Your task to perform on an android device: Show me some nice wallpapers for my phone Image 0: 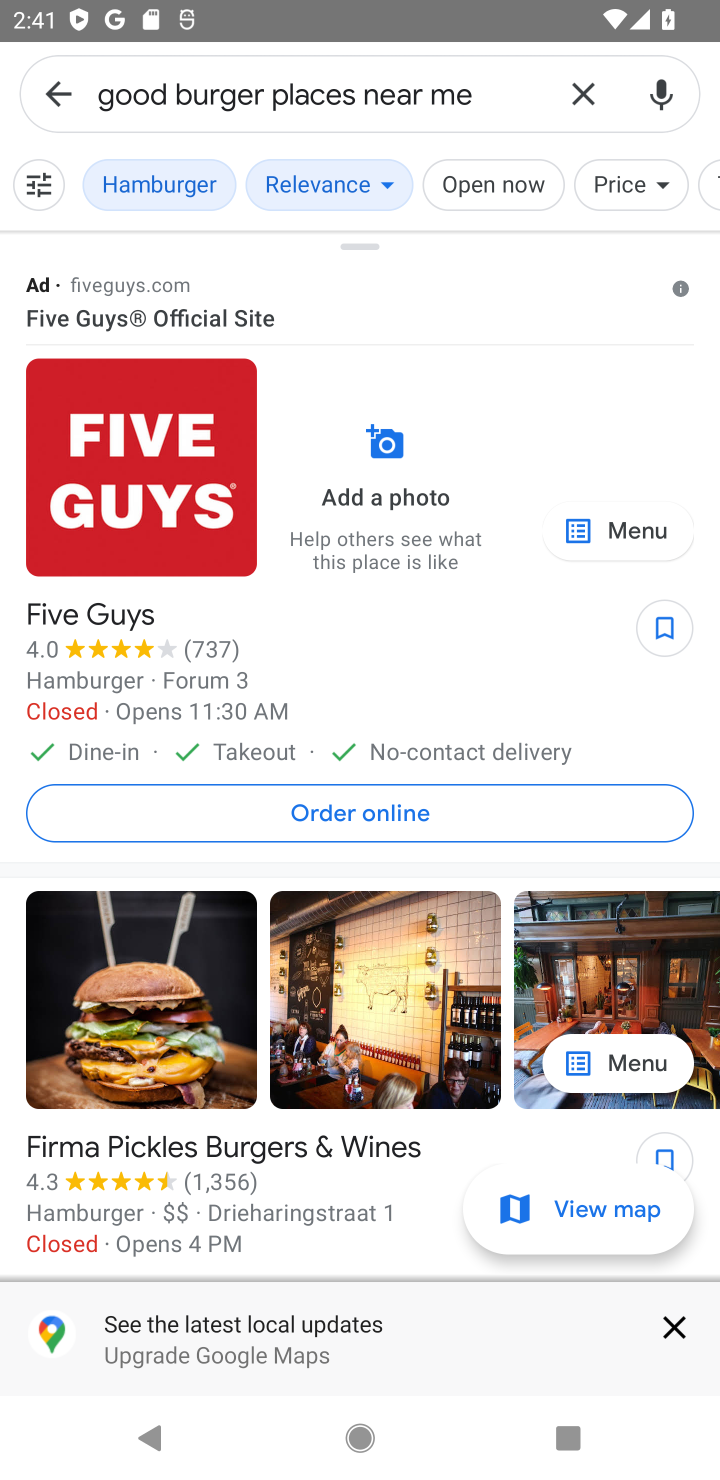
Step 0: press home button
Your task to perform on an android device: Show me some nice wallpapers for my phone Image 1: 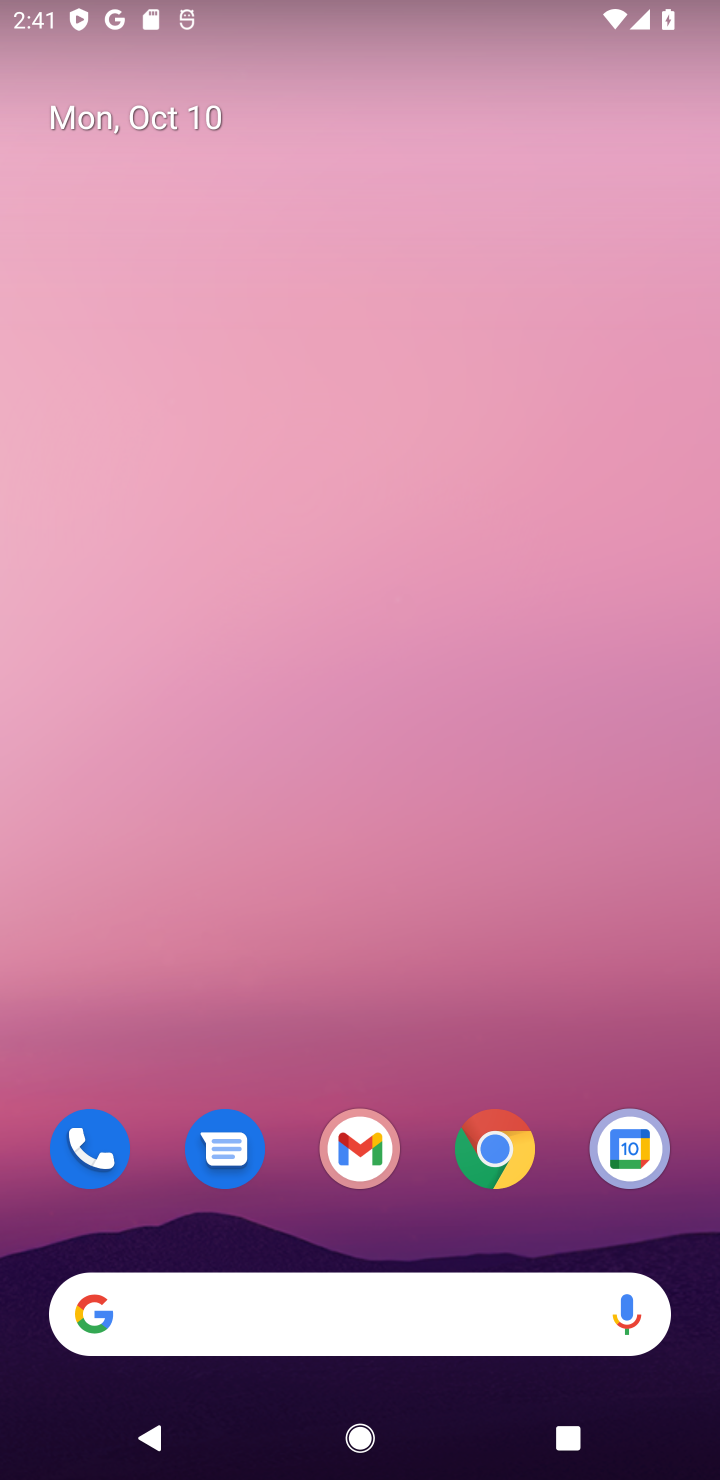
Step 1: click (366, 1338)
Your task to perform on an android device: Show me some nice wallpapers for my phone Image 2: 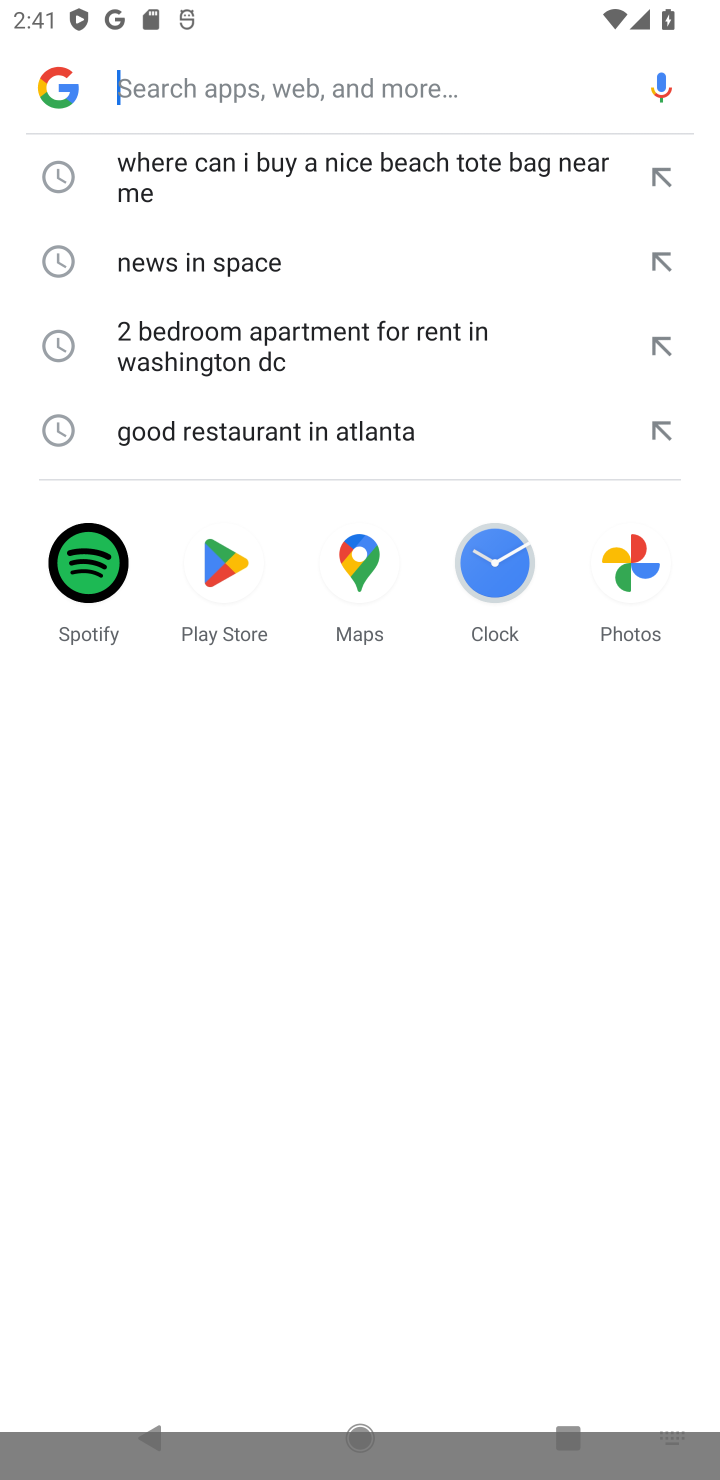
Step 2: type "Show me some nice wallpapers for my phone"
Your task to perform on an android device: Show me some nice wallpapers for my phone Image 3: 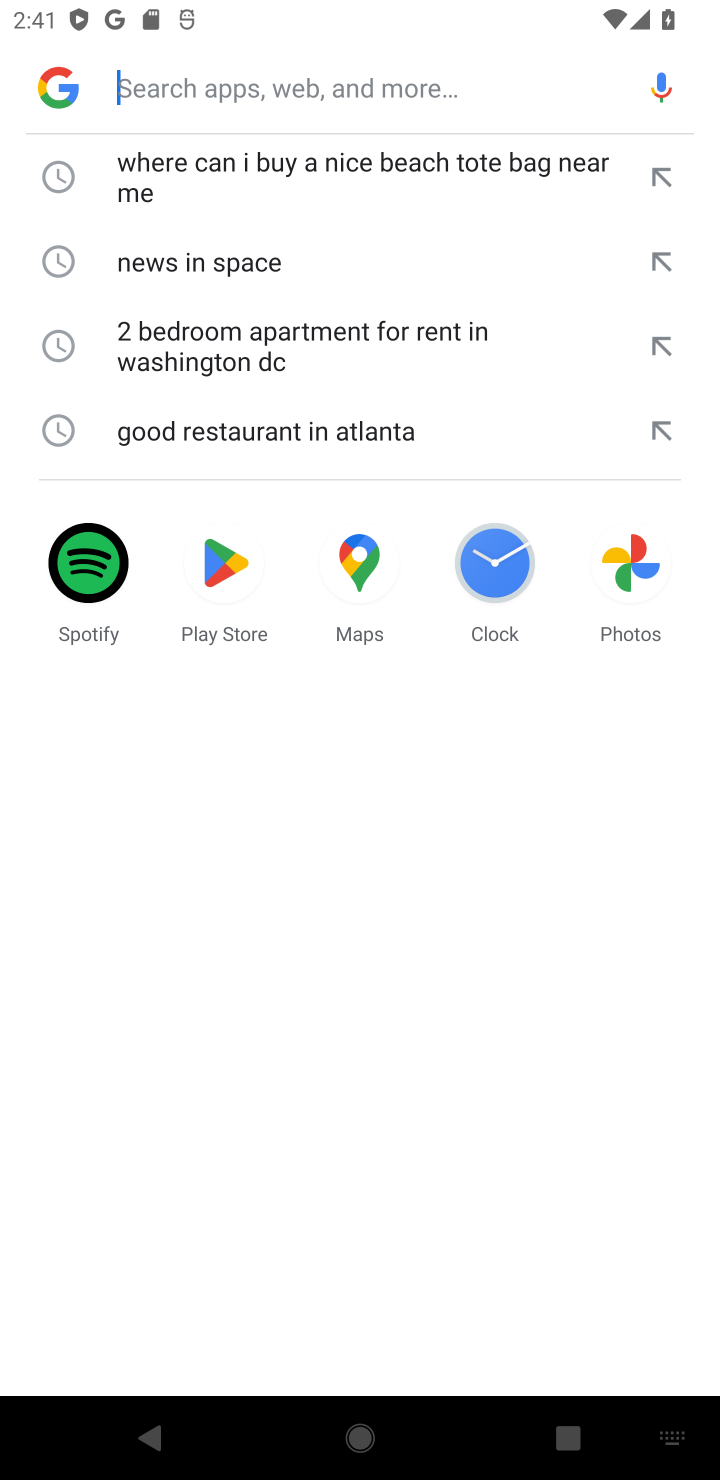
Step 3: click (350, 205)
Your task to perform on an android device: Show me some nice wallpapers for my phone Image 4: 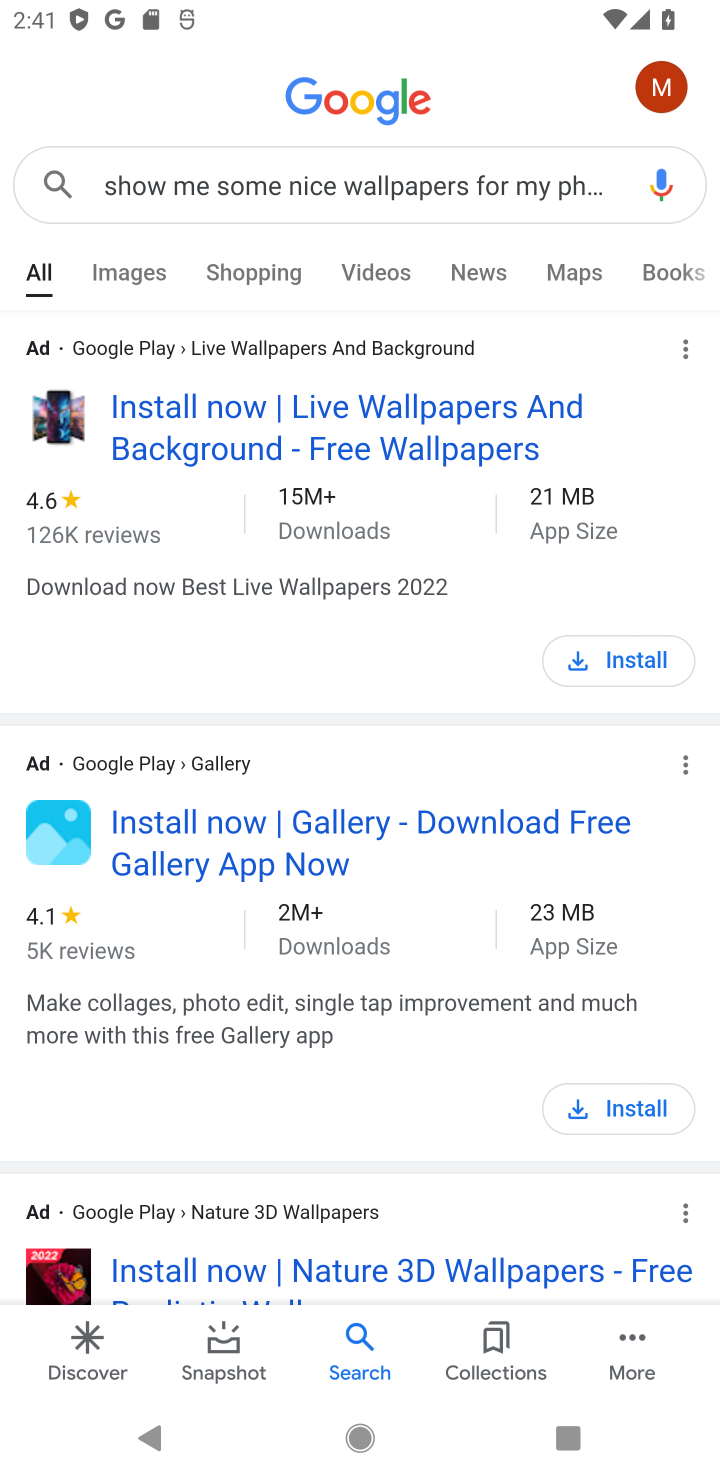
Step 4: task complete